Your task to perform on an android device: Play the last video I watched on Youtube Image 0: 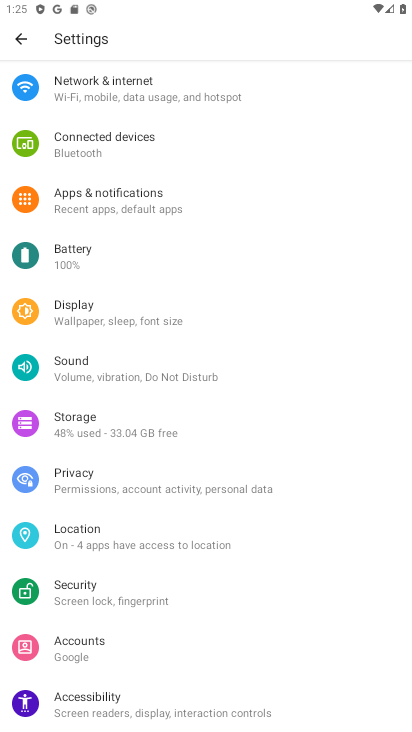
Step 0: press home button
Your task to perform on an android device: Play the last video I watched on Youtube Image 1: 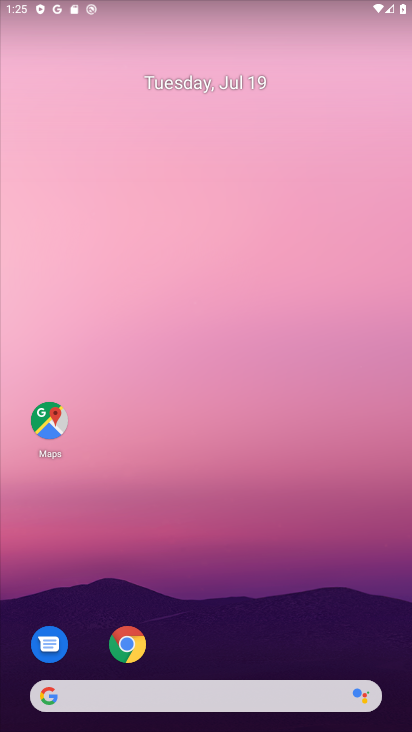
Step 1: drag from (217, 676) to (301, 185)
Your task to perform on an android device: Play the last video I watched on Youtube Image 2: 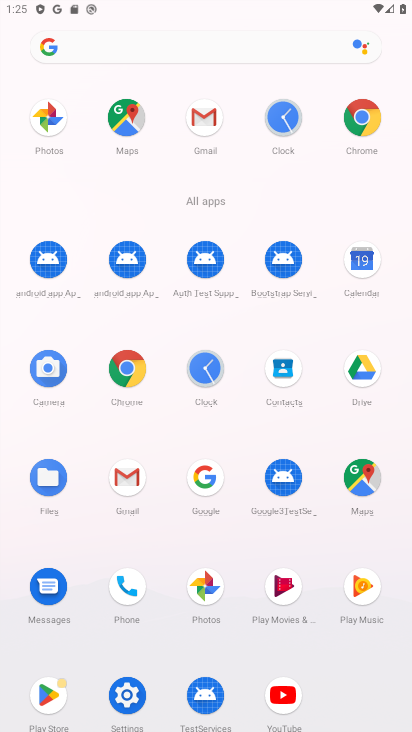
Step 2: click (283, 700)
Your task to perform on an android device: Play the last video I watched on Youtube Image 3: 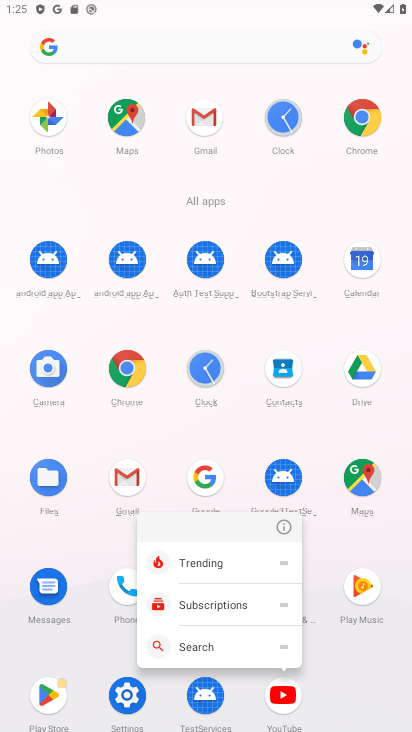
Step 3: click (284, 699)
Your task to perform on an android device: Play the last video I watched on Youtube Image 4: 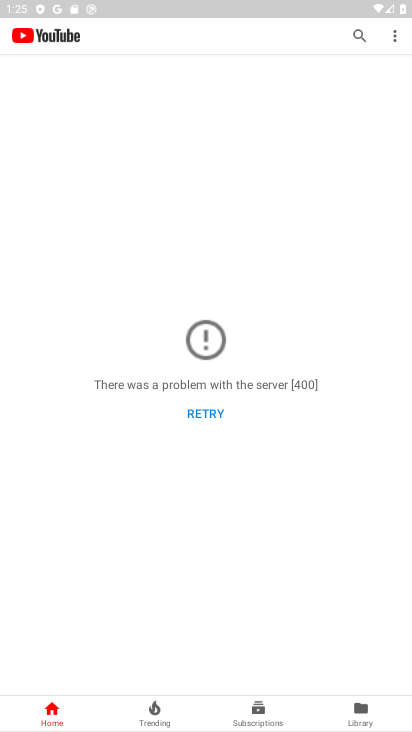
Step 4: click (373, 720)
Your task to perform on an android device: Play the last video I watched on Youtube Image 5: 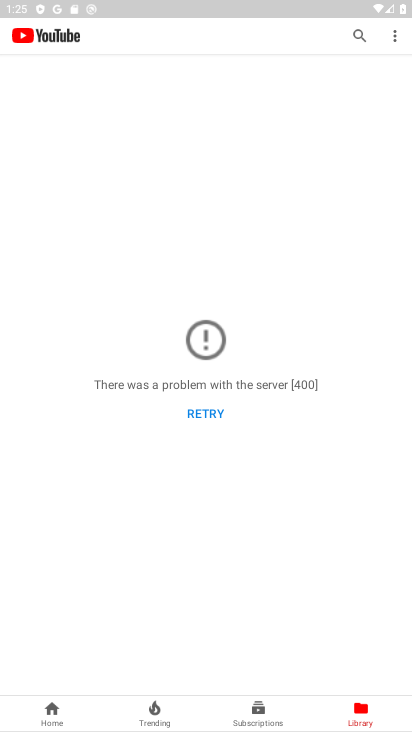
Step 5: task complete